Your task to perform on an android device: toggle notification dots Image 0: 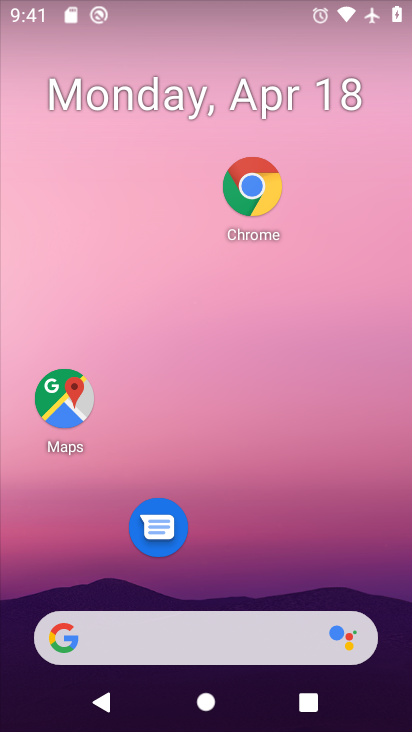
Step 0: drag from (235, 255) to (256, 109)
Your task to perform on an android device: toggle notification dots Image 1: 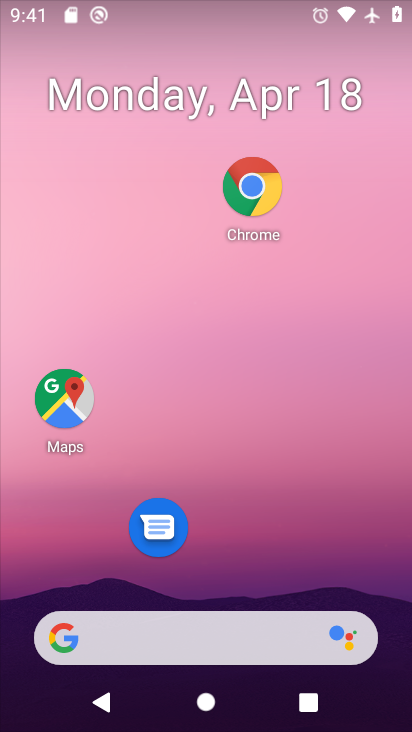
Step 1: drag from (286, 556) to (345, 50)
Your task to perform on an android device: toggle notification dots Image 2: 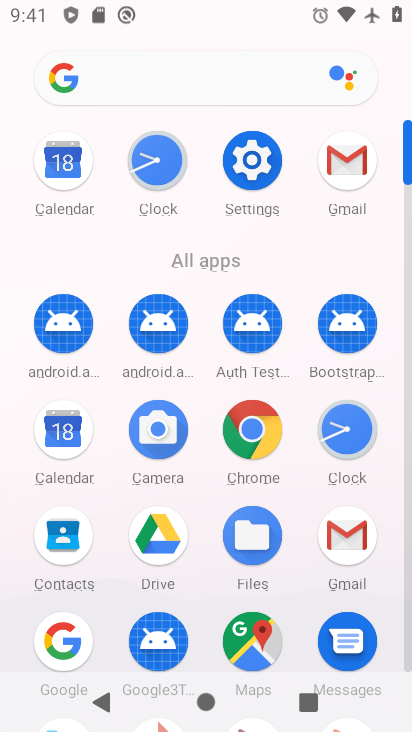
Step 2: click (247, 158)
Your task to perform on an android device: toggle notification dots Image 3: 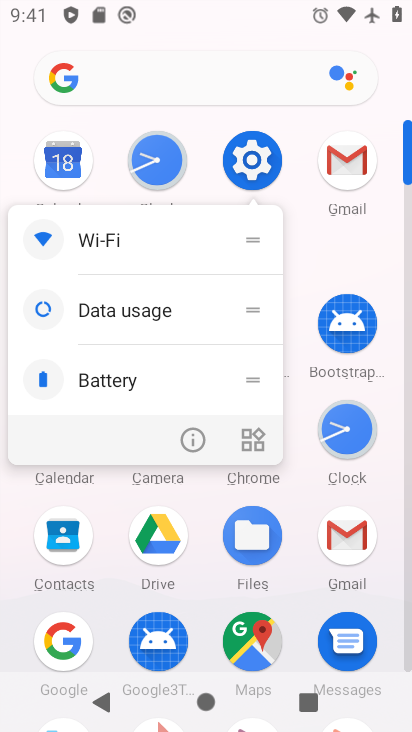
Step 3: click (247, 158)
Your task to perform on an android device: toggle notification dots Image 4: 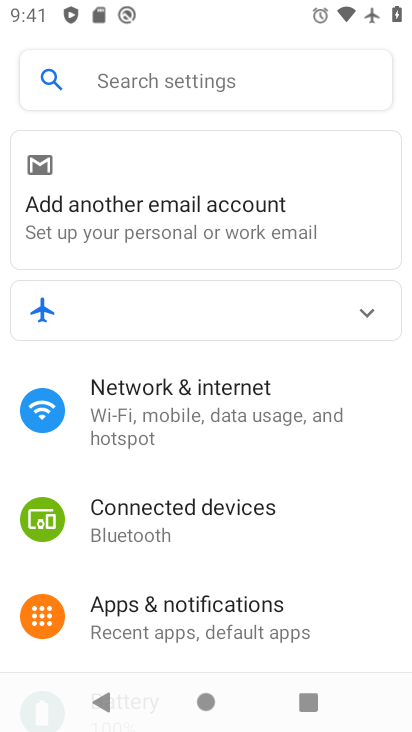
Step 4: click (119, 602)
Your task to perform on an android device: toggle notification dots Image 5: 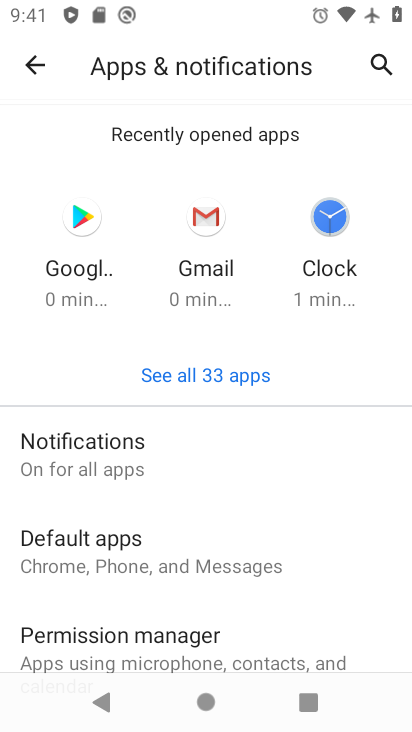
Step 5: drag from (279, 603) to (278, 421)
Your task to perform on an android device: toggle notification dots Image 6: 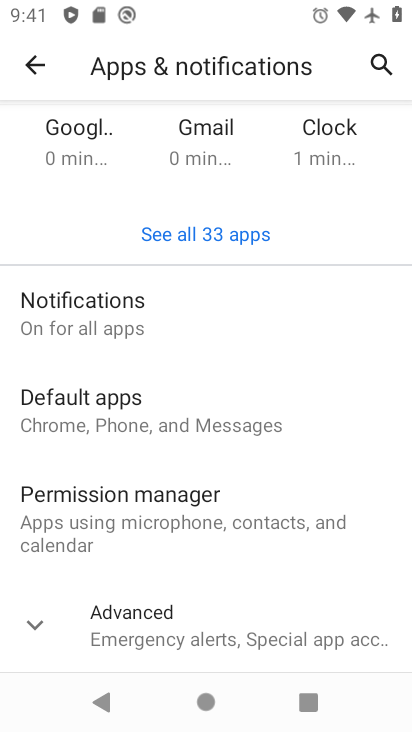
Step 6: click (78, 327)
Your task to perform on an android device: toggle notification dots Image 7: 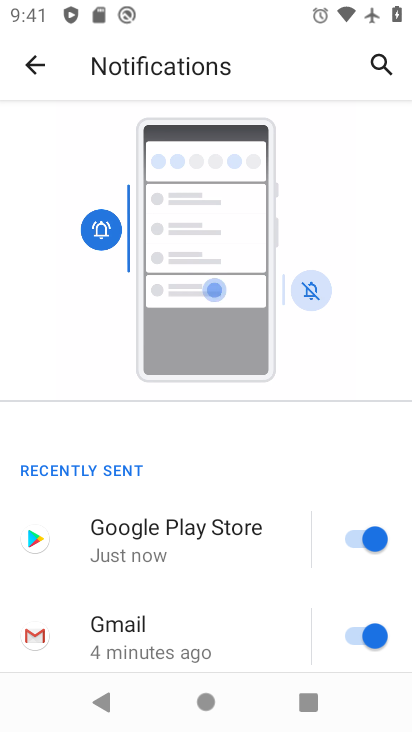
Step 7: drag from (175, 579) to (183, 210)
Your task to perform on an android device: toggle notification dots Image 8: 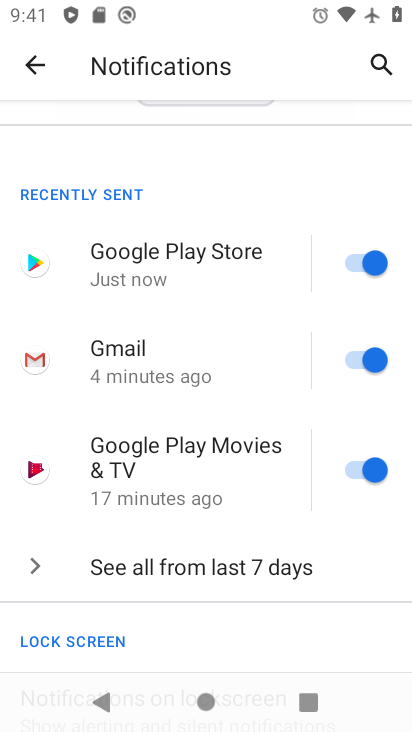
Step 8: drag from (159, 304) to (188, 212)
Your task to perform on an android device: toggle notification dots Image 9: 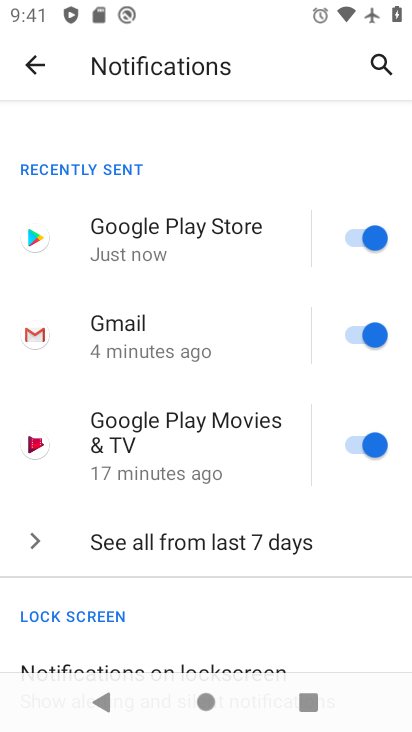
Step 9: drag from (180, 615) to (181, 73)
Your task to perform on an android device: toggle notification dots Image 10: 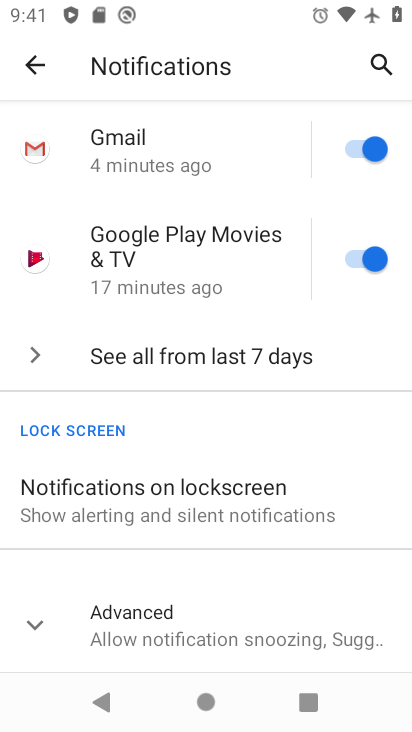
Step 10: click (165, 608)
Your task to perform on an android device: toggle notification dots Image 11: 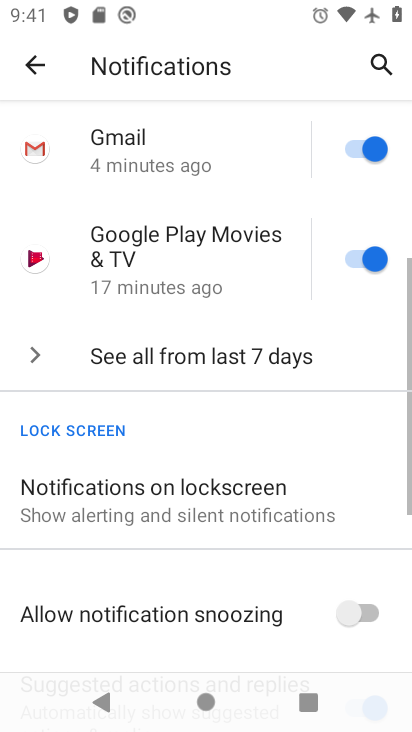
Step 11: drag from (167, 595) to (184, 155)
Your task to perform on an android device: toggle notification dots Image 12: 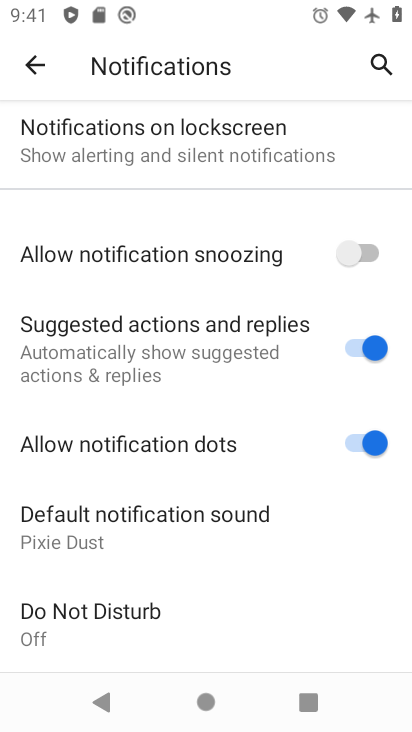
Step 12: click (354, 442)
Your task to perform on an android device: toggle notification dots Image 13: 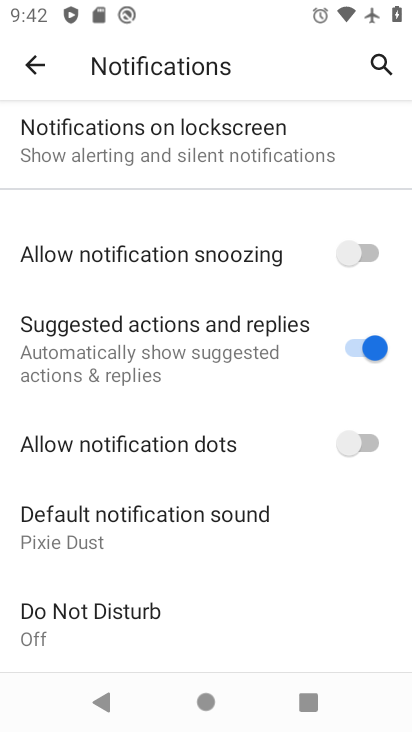
Step 13: task complete